Your task to perform on an android device: Go to notification settings Image 0: 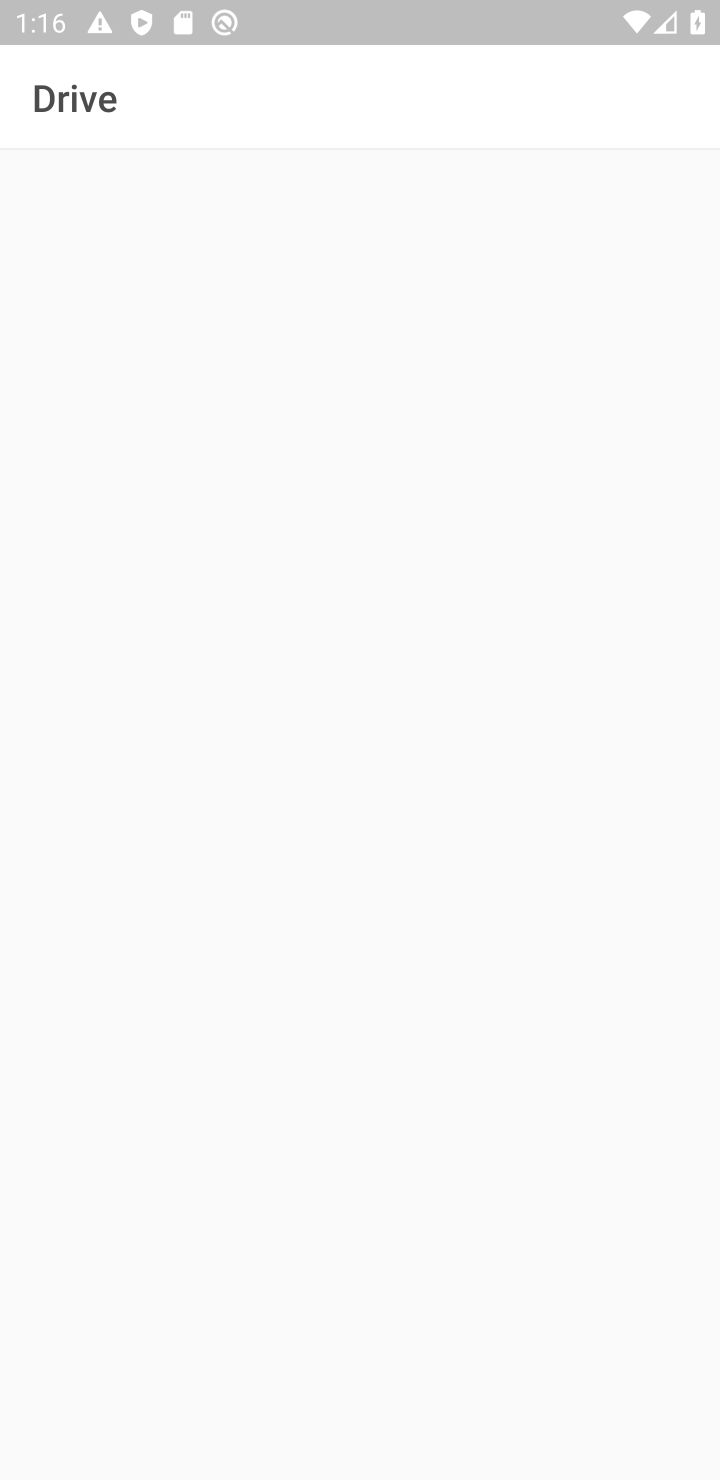
Step 0: press home button
Your task to perform on an android device: Go to notification settings Image 1: 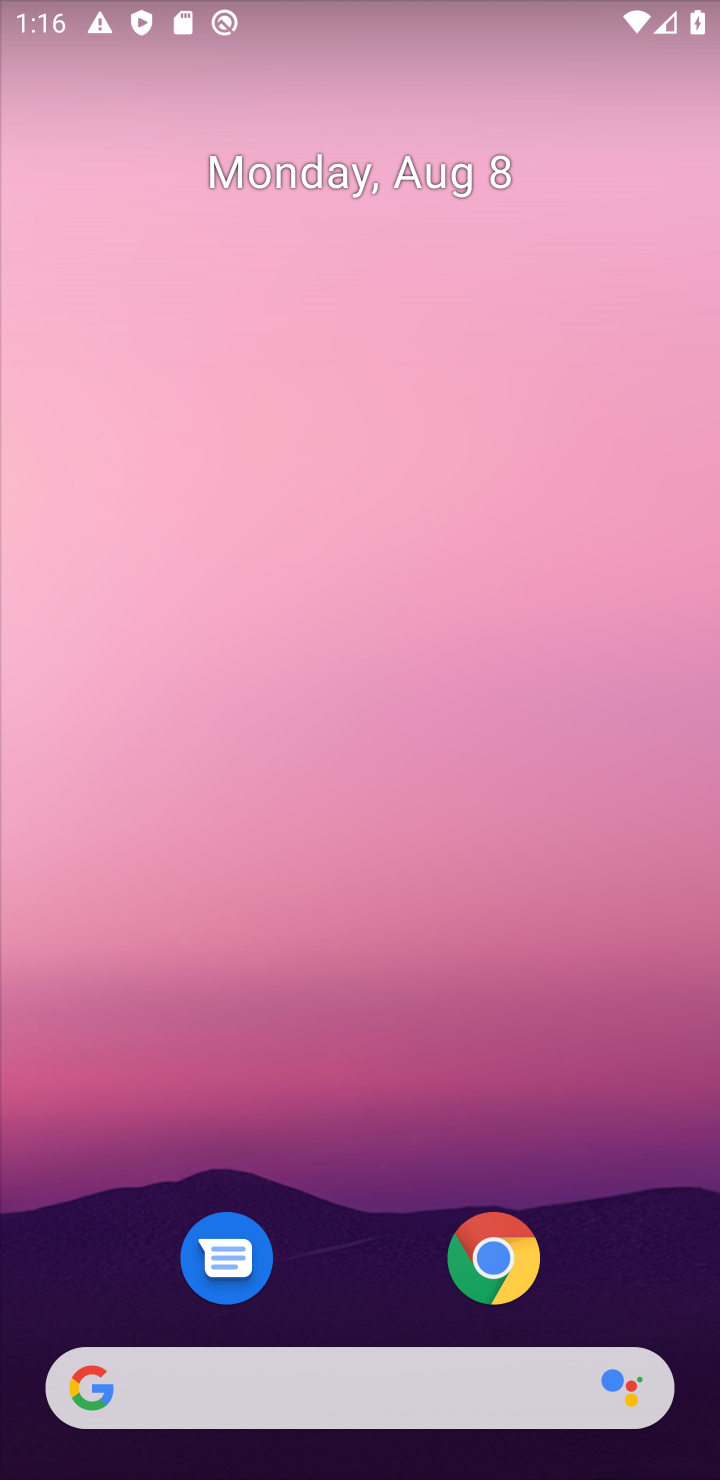
Step 1: drag from (396, 1299) to (449, 661)
Your task to perform on an android device: Go to notification settings Image 2: 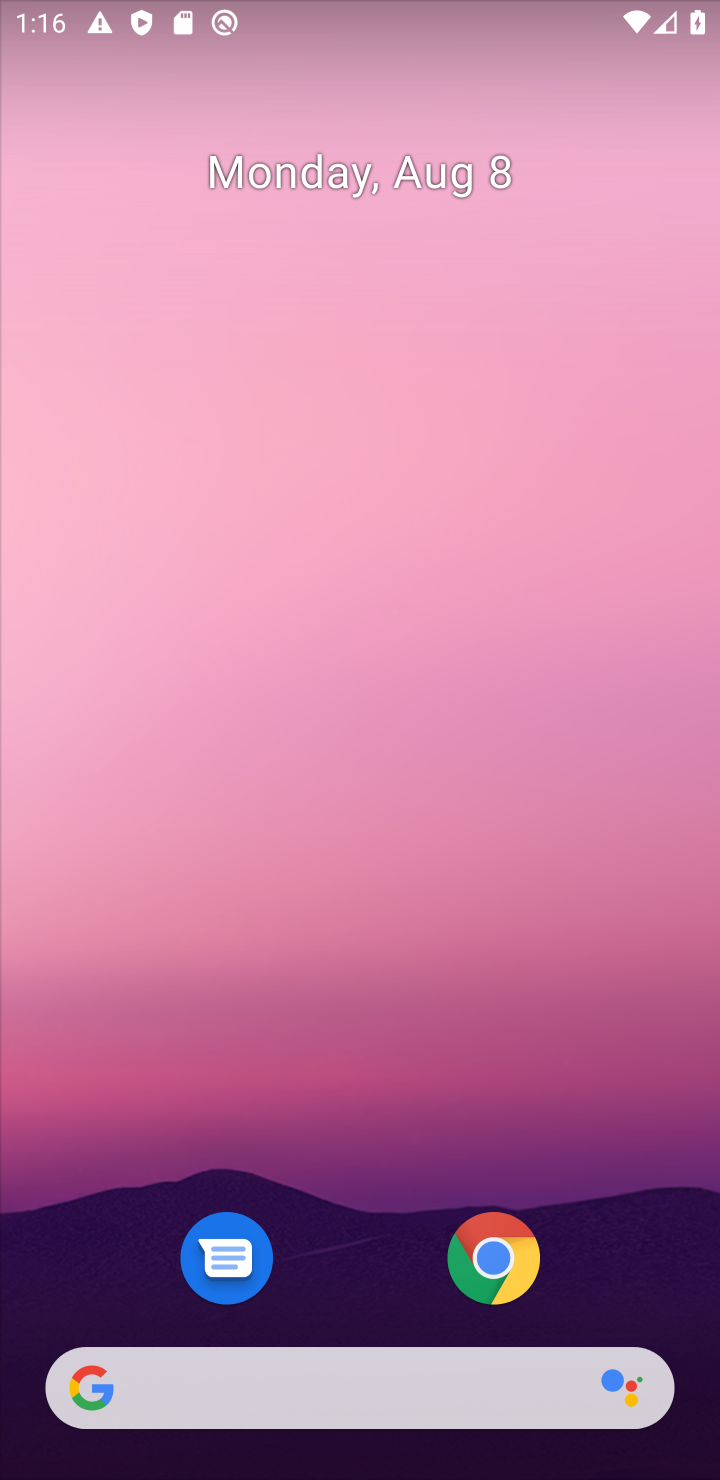
Step 2: drag from (406, 1199) to (517, 408)
Your task to perform on an android device: Go to notification settings Image 3: 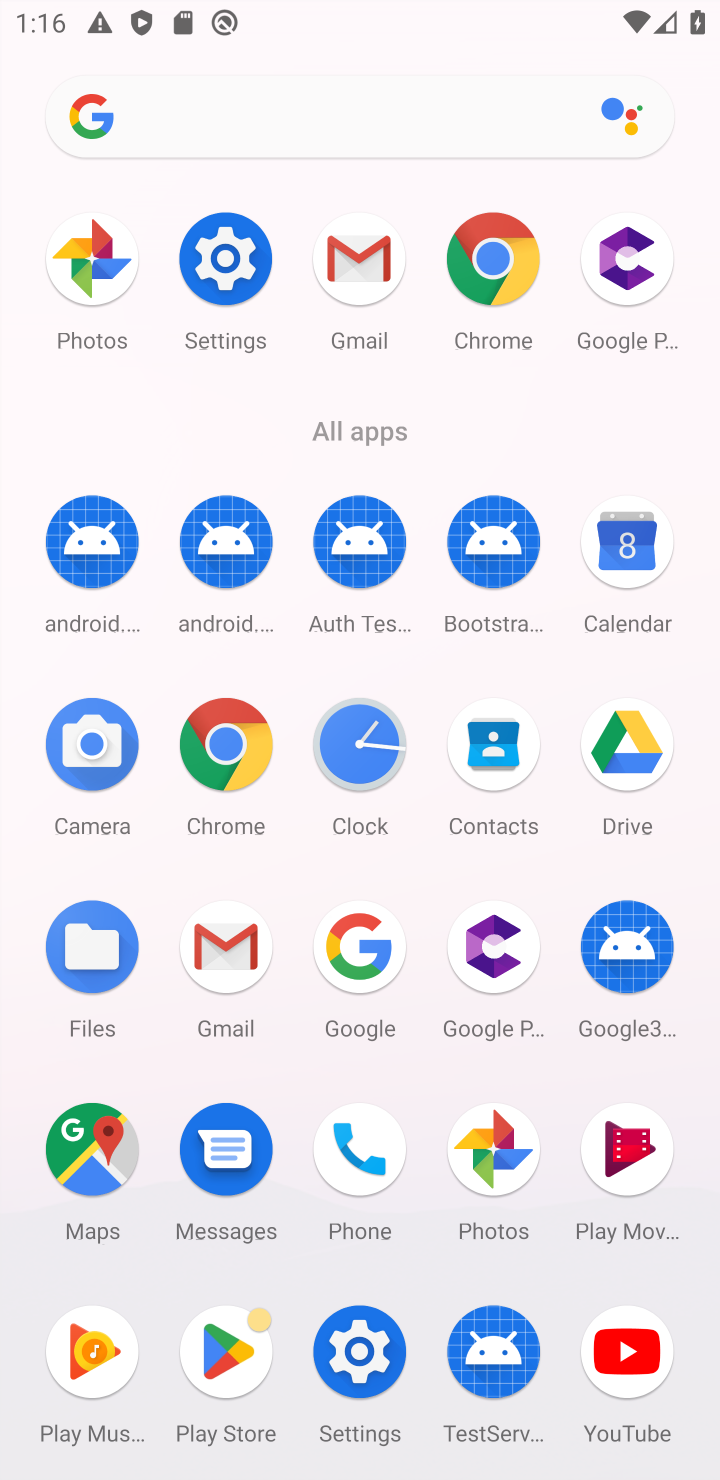
Step 3: click (232, 264)
Your task to perform on an android device: Go to notification settings Image 4: 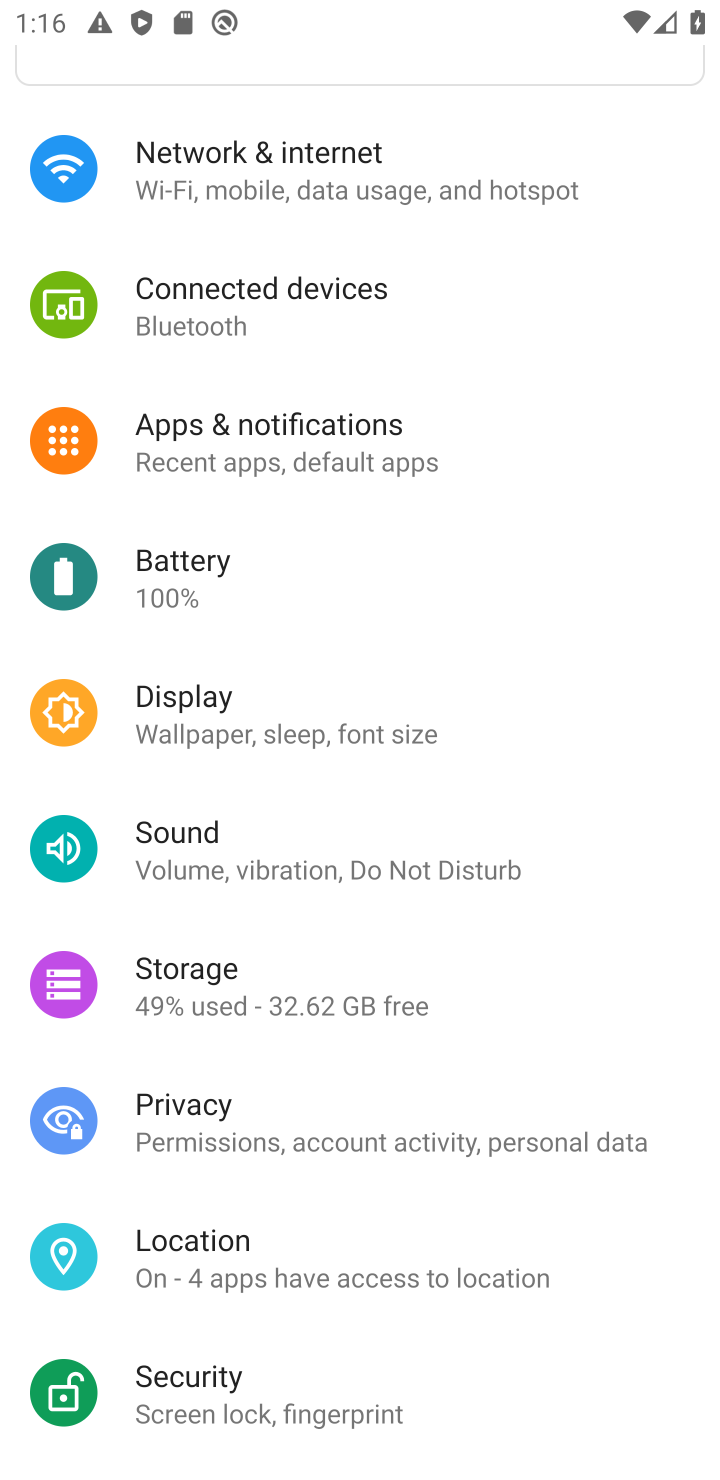
Step 4: drag from (269, 1314) to (325, 907)
Your task to perform on an android device: Go to notification settings Image 5: 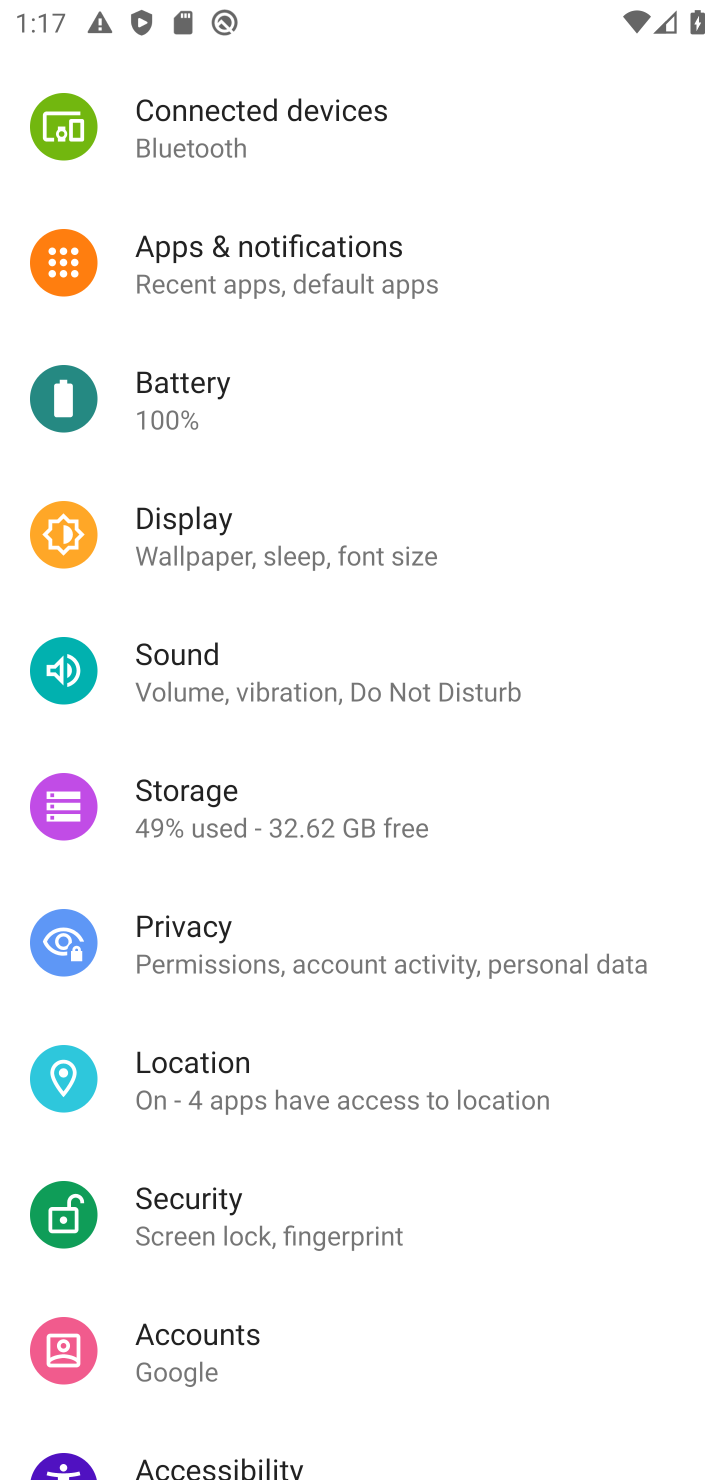
Step 5: click (377, 245)
Your task to perform on an android device: Go to notification settings Image 6: 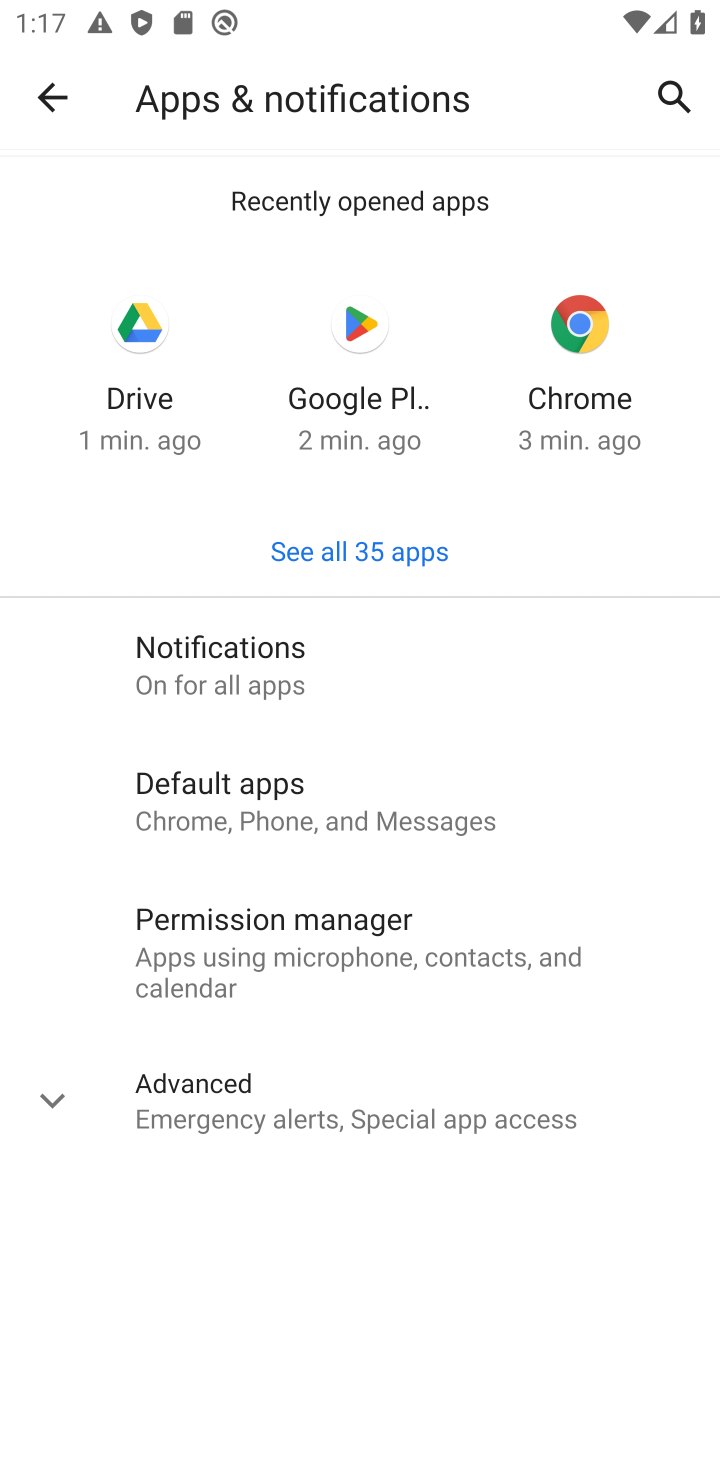
Step 6: click (356, 642)
Your task to perform on an android device: Go to notification settings Image 7: 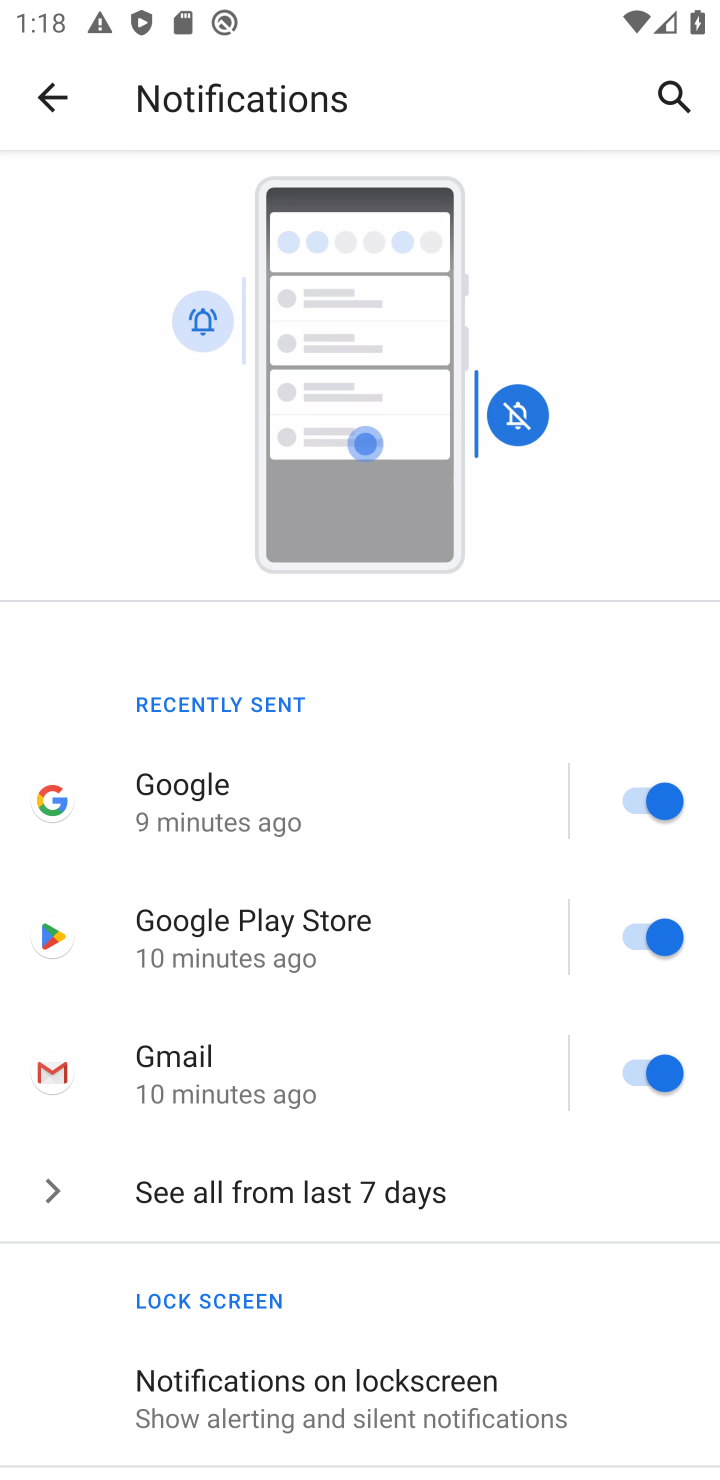
Step 7: task complete